Your task to perform on an android device: Go to Maps Image 0: 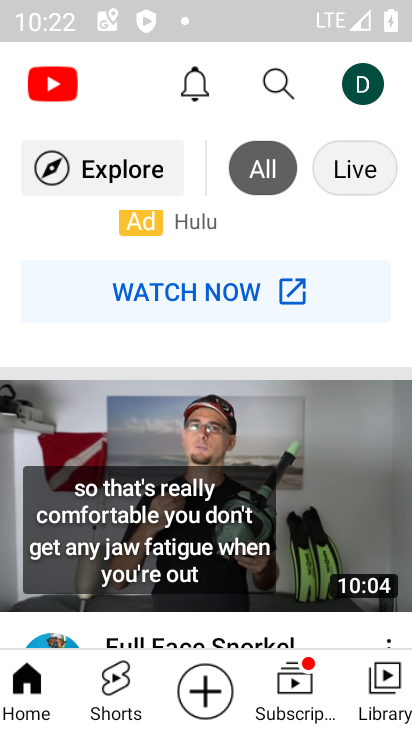
Step 0: press home button
Your task to perform on an android device: Go to Maps Image 1: 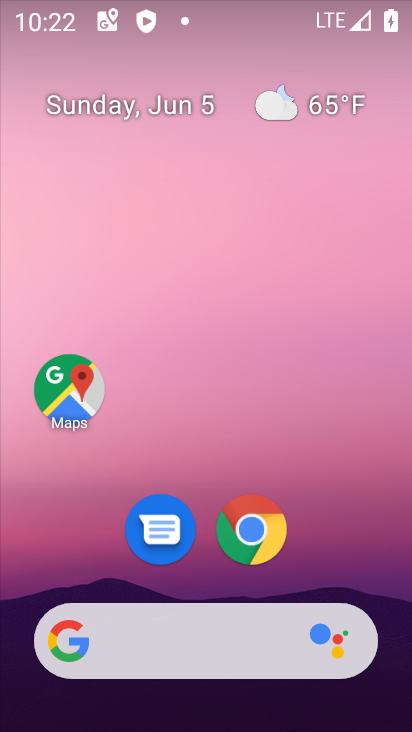
Step 1: click (86, 398)
Your task to perform on an android device: Go to Maps Image 2: 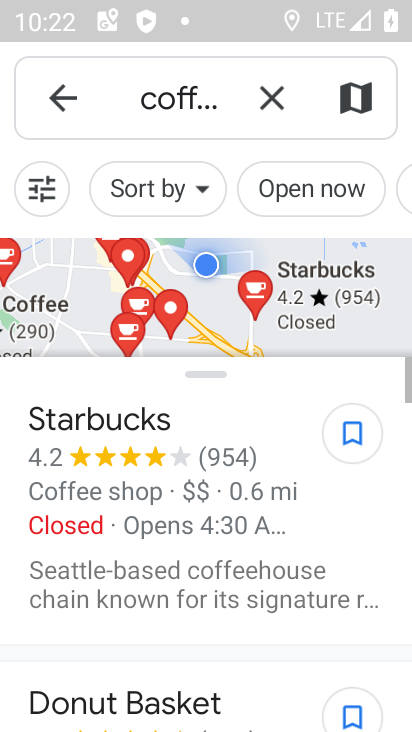
Step 2: click (273, 88)
Your task to perform on an android device: Go to Maps Image 3: 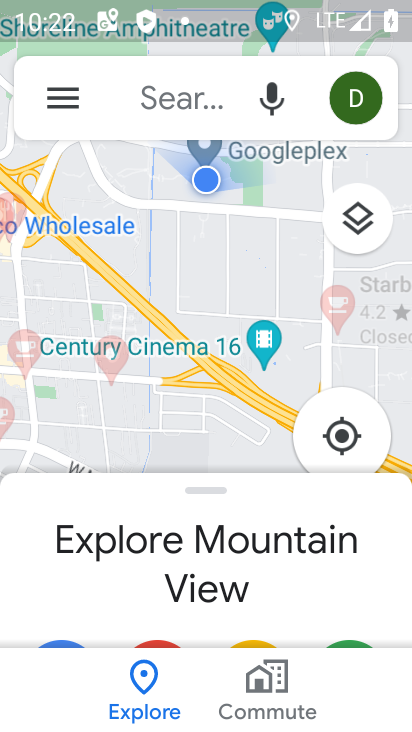
Step 3: task complete